Your task to perform on an android device: What's the weather today? Image 0: 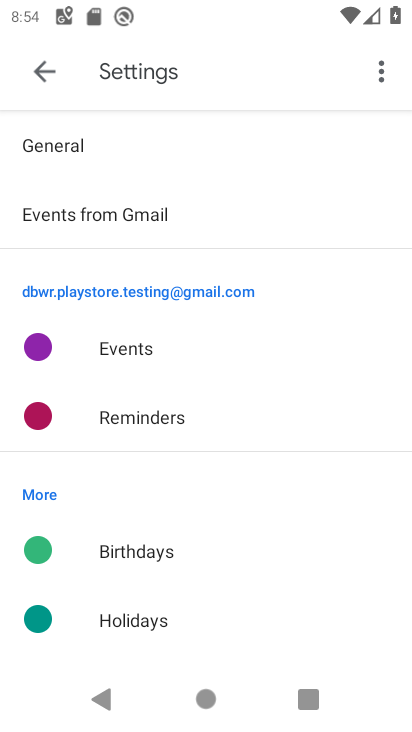
Step 0: click (27, 65)
Your task to perform on an android device: What's the weather today? Image 1: 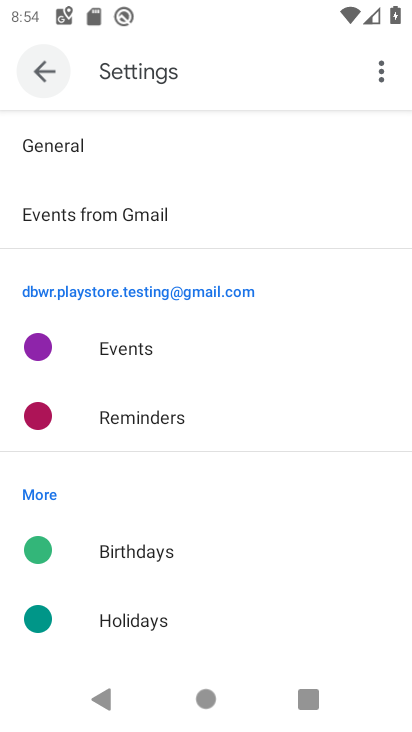
Step 1: click (27, 65)
Your task to perform on an android device: What's the weather today? Image 2: 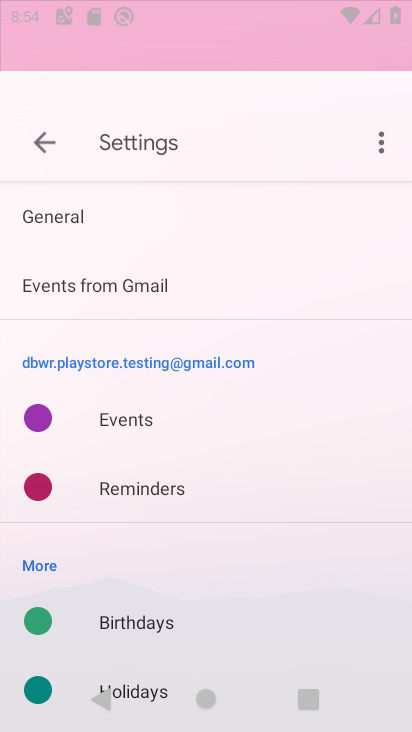
Step 2: click (27, 65)
Your task to perform on an android device: What's the weather today? Image 3: 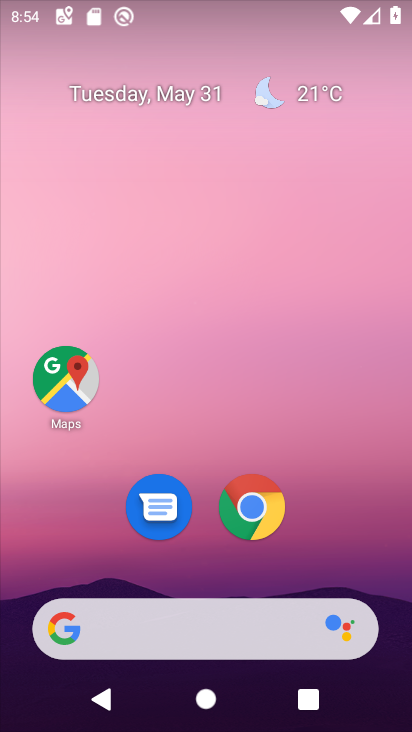
Step 3: drag from (246, 690) to (212, 134)
Your task to perform on an android device: What's the weather today? Image 4: 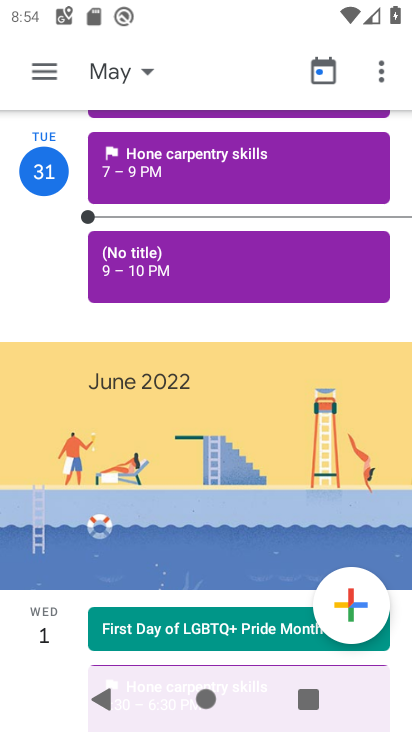
Step 4: press back button
Your task to perform on an android device: What's the weather today? Image 5: 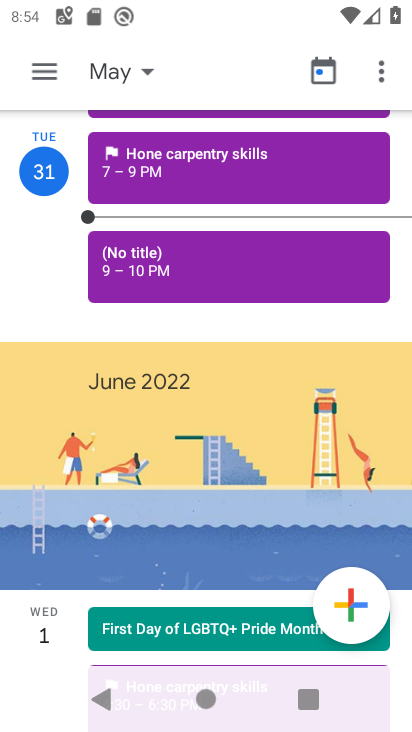
Step 5: press back button
Your task to perform on an android device: What's the weather today? Image 6: 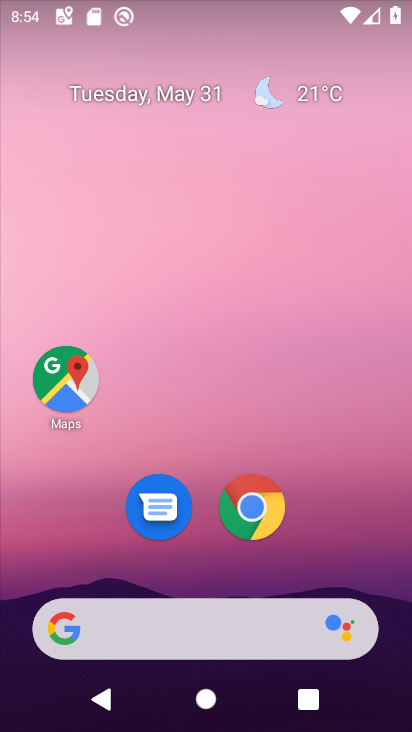
Step 6: press home button
Your task to perform on an android device: What's the weather today? Image 7: 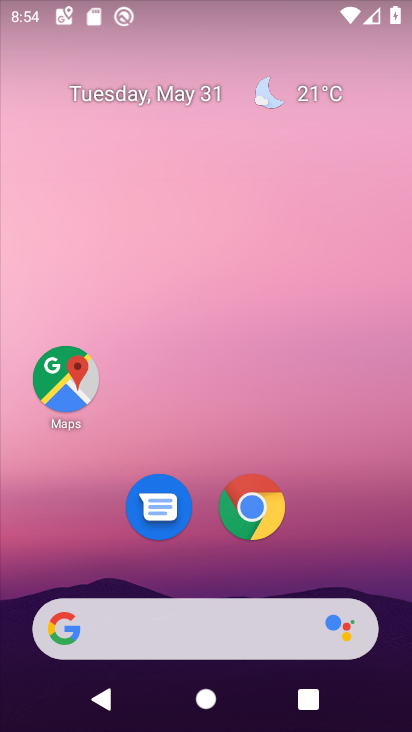
Step 7: drag from (18, 188) to (361, 394)
Your task to perform on an android device: What's the weather today? Image 8: 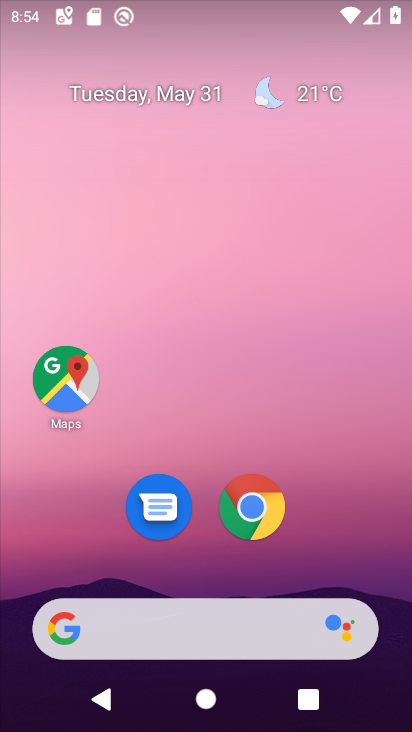
Step 8: drag from (183, 296) to (405, 432)
Your task to perform on an android device: What's the weather today? Image 9: 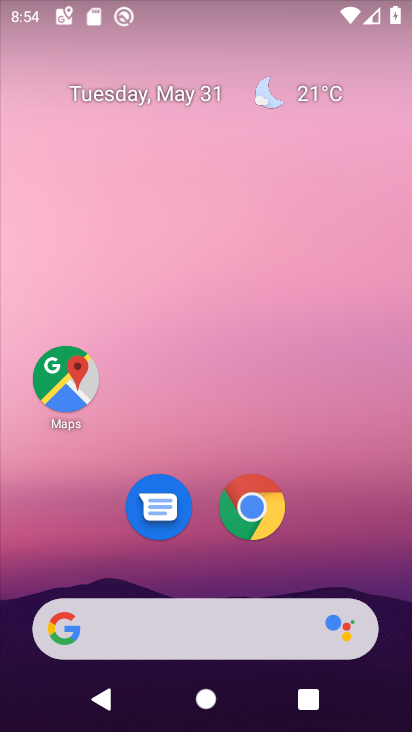
Step 9: drag from (17, 182) to (382, 355)
Your task to perform on an android device: What's the weather today? Image 10: 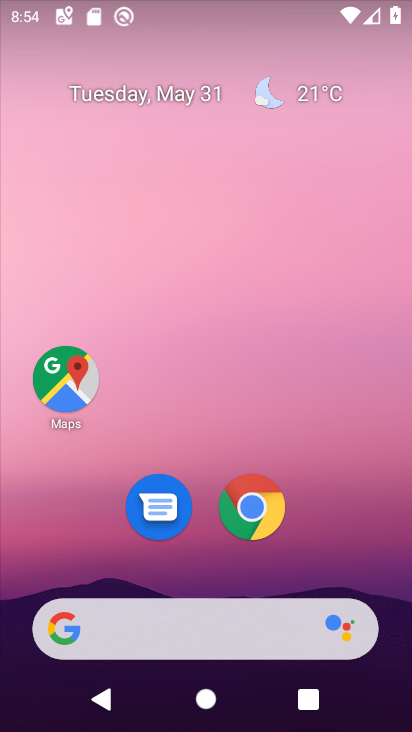
Step 10: drag from (11, 177) to (403, 301)
Your task to perform on an android device: What's the weather today? Image 11: 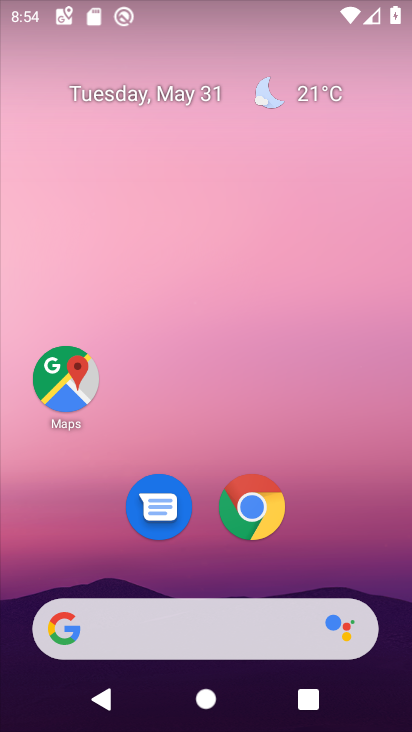
Step 11: drag from (71, 229) to (396, 399)
Your task to perform on an android device: What's the weather today? Image 12: 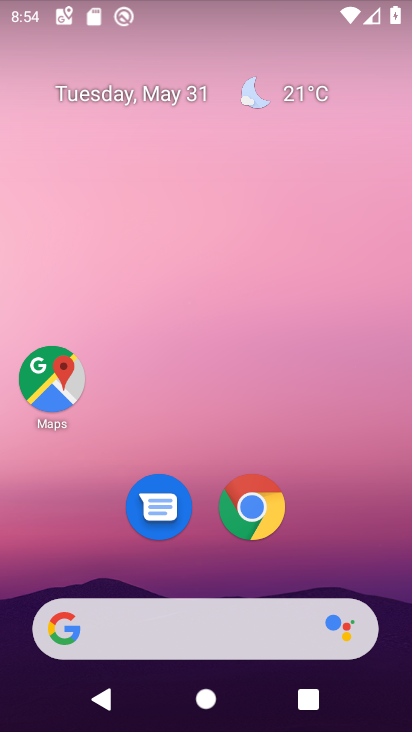
Step 12: drag from (41, 135) to (399, 253)
Your task to perform on an android device: What's the weather today? Image 13: 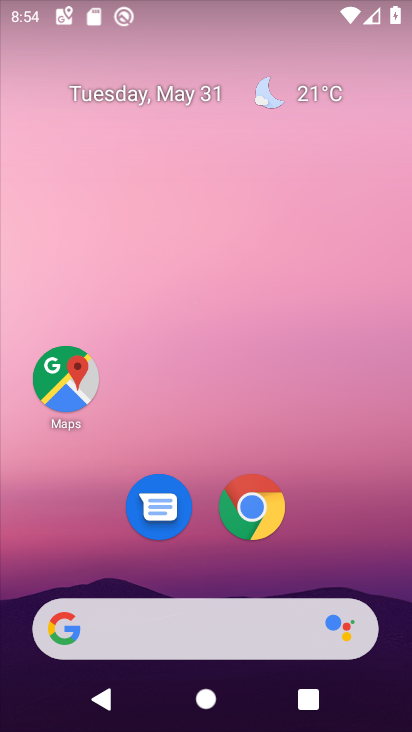
Step 13: drag from (142, 162) to (391, 471)
Your task to perform on an android device: What's the weather today? Image 14: 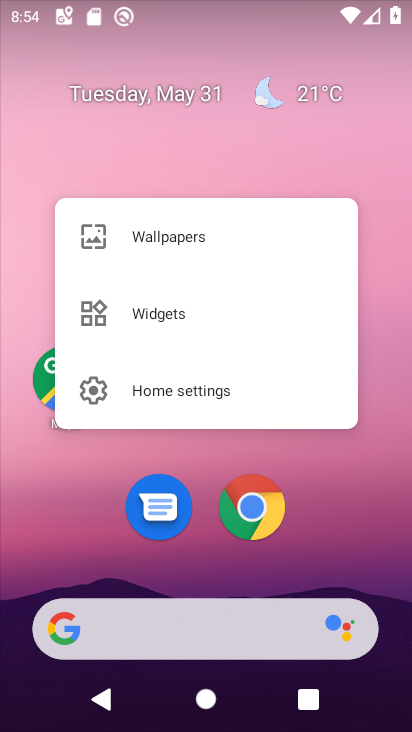
Step 14: drag from (127, 481) to (383, 333)
Your task to perform on an android device: What's the weather today? Image 15: 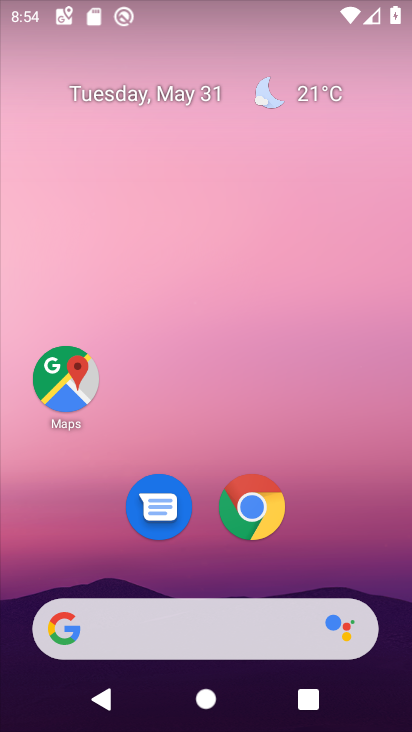
Step 15: drag from (68, 166) to (380, 423)
Your task to perform on an android device: What's the weather today? Image 16: 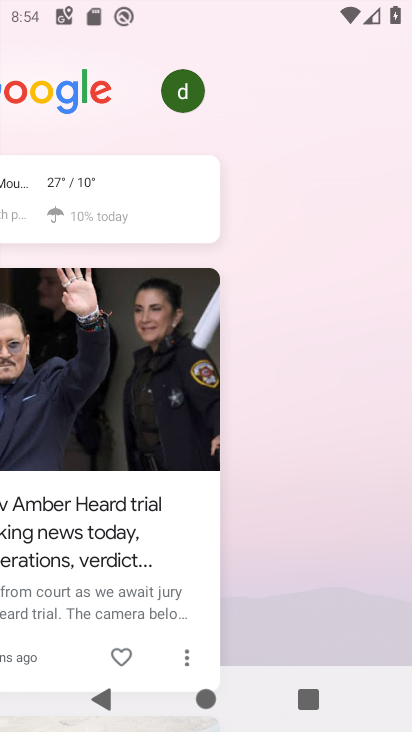
Step 16: drag from (35, 196) to (366, 349)
Your task to perform on an android device: What's the weather today? Image 17: 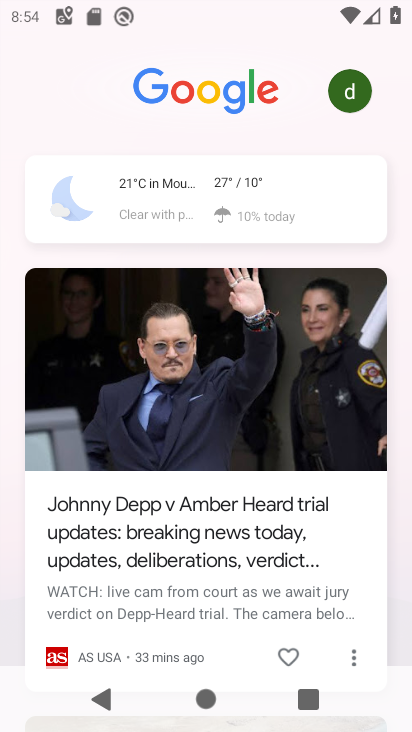
Step 17: click (174, 188)
Your task to perform on an android device: What's the weather today? Image 18: 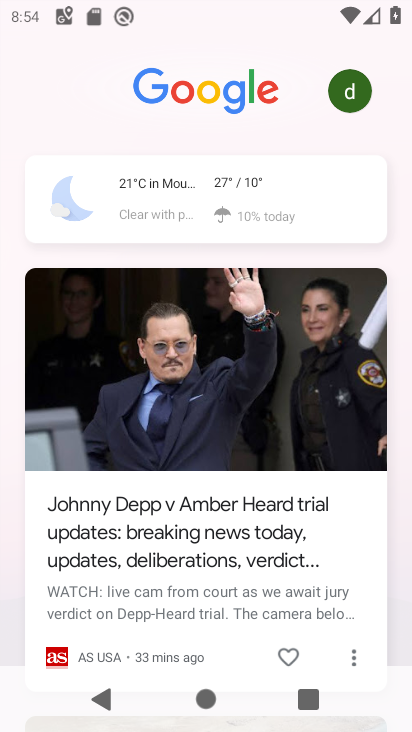
Step 18: click (167, 188)
Your task to perform on an android device: What's the weather today? Image 19: 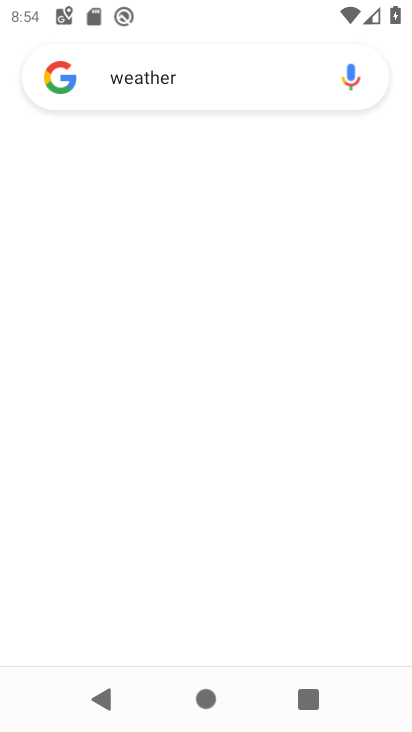
Step 19: click (167, 198)
Your task to perform on an android device: What's the weather today? Image 20: 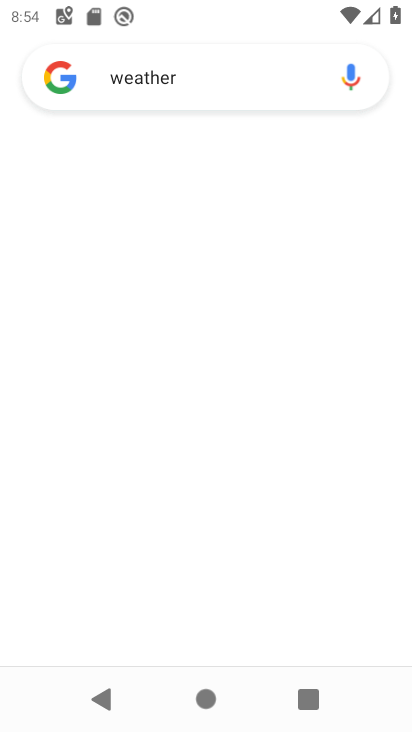
Step 20: click (166, 197)
Your task to perform on an android device: What's the weather today? Image 21: 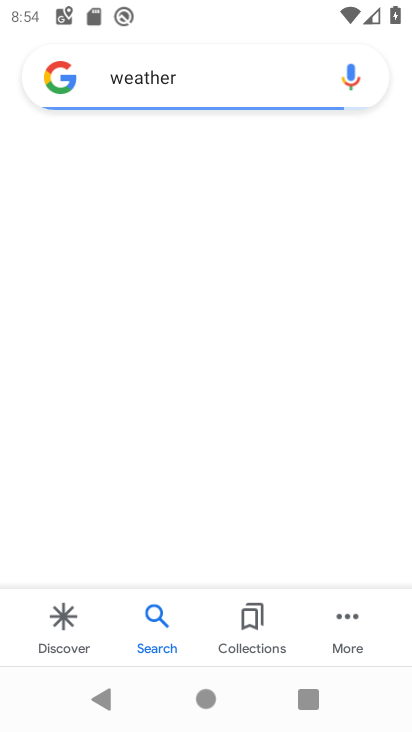
Step 21: task complete